Your task to perform on an android device: open app "File Manager" Image 0: 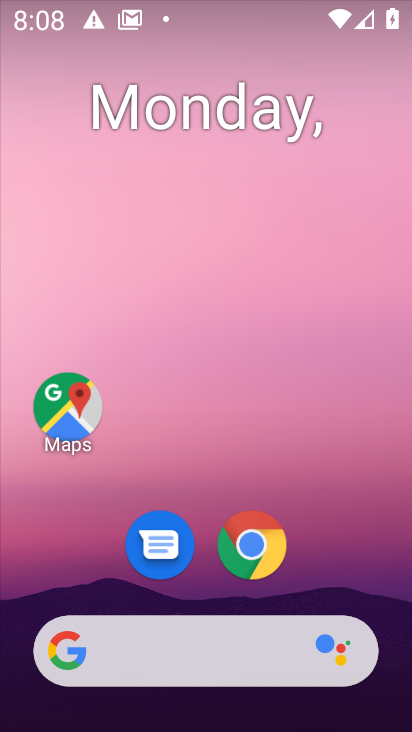
Step 0: drag from (377, 571) to (290, 198)
Your task to perform on an android device: open app "File Manager" Image 1: 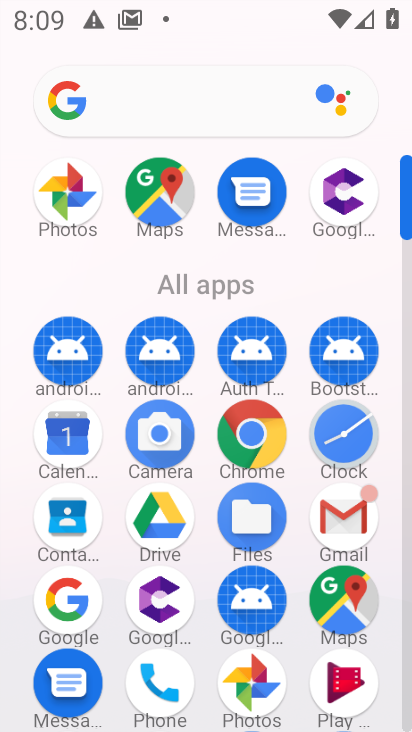
Step 1: drag from (178, 246) to (127, 125)
Your task to perform on an android device: open app "File Manager" Image 2: 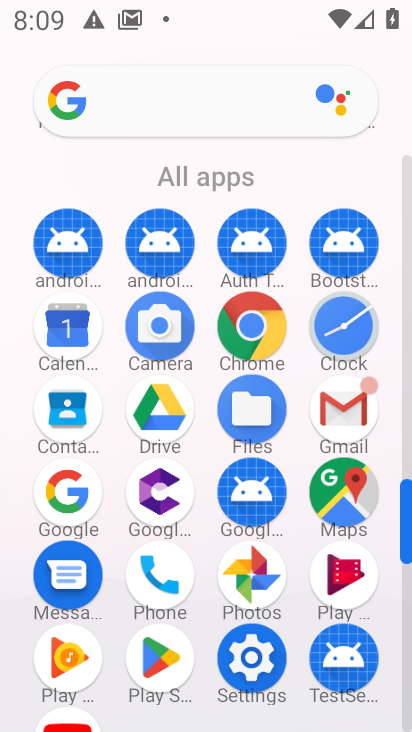
Step 2: click (141, 666)
Your task to perform on an android device: open app "File Manager" Image 3: 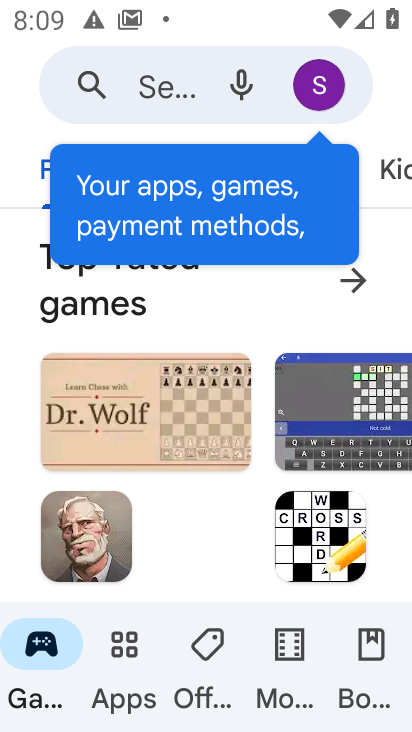
Step 3: click (167, 82)
Your task to perform on an android device: open app "File Manager" Image 4: 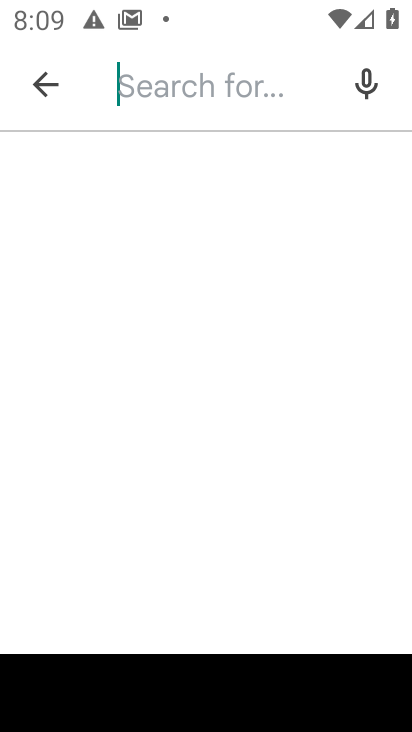
Step 4: type "file manager"
Your task to perform on an android device: open app "File Manager" Image 5: 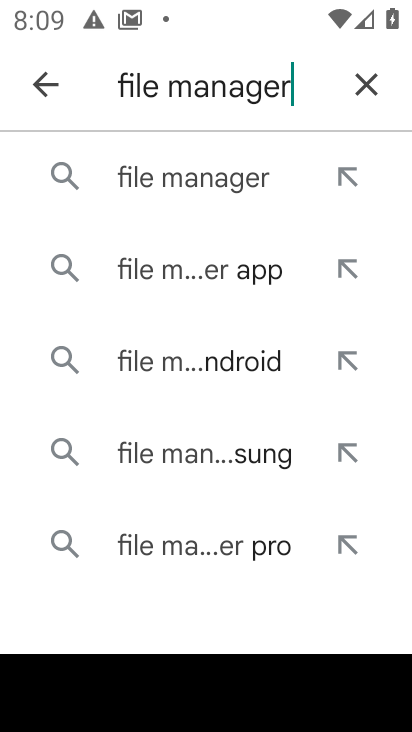
Step 5: click (254, 183)
Your task to perform on an android device: open app "File Manager" Image 6: 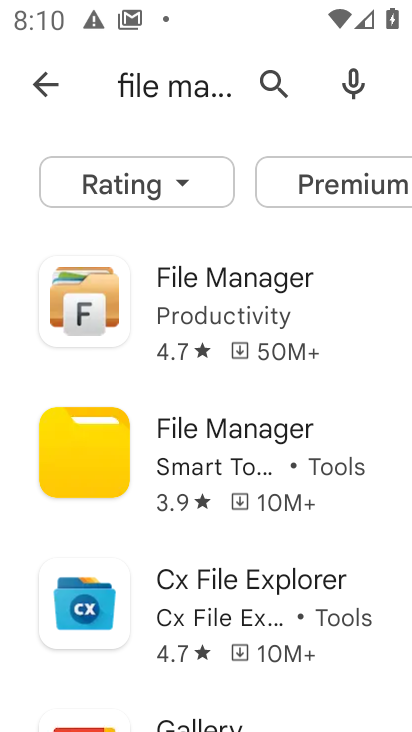
Step 6: click (265, 295)
Your task to perform on an android device: open app "File Manager" Image 7: 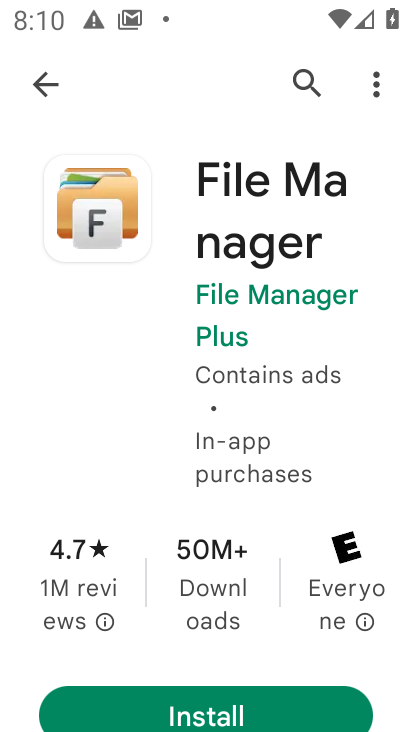
Step 7: task complete